Your task to perform on an android device: change notifications settings Image 0: 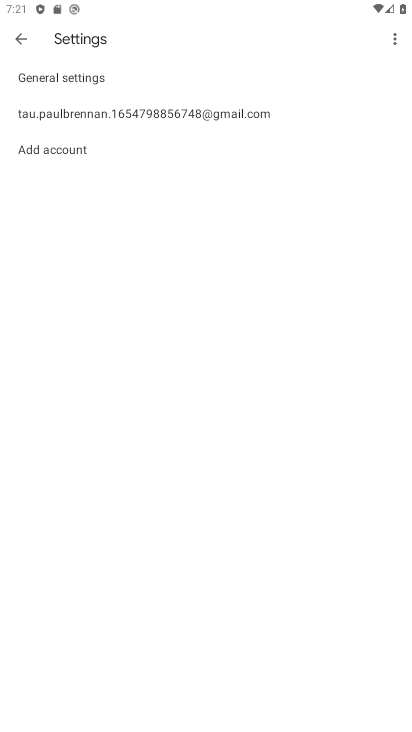
Step 0: press home button
Your task to perform on an android device: change notifications settings Image 1: 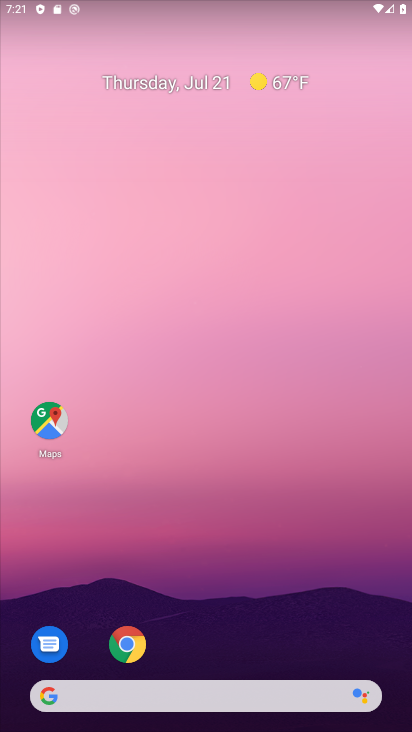
Step 1: drag from (230, 657) to (248, 99)
Your task to perform on an android device: change notifications settings Image 2: 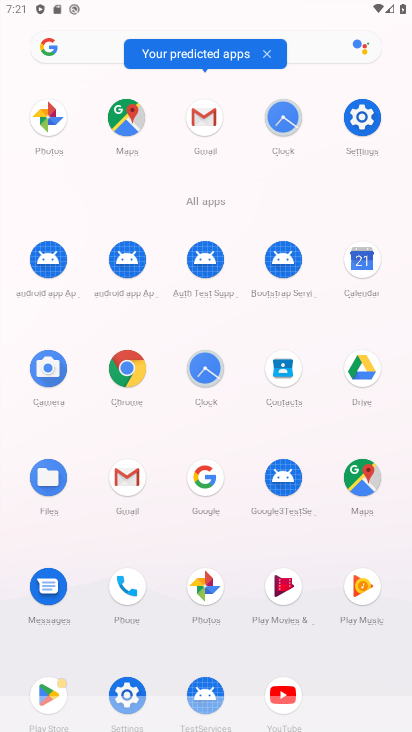
Step 2: click (133, 689)
Your task to perform on an android device: change notifications settings Image 3: 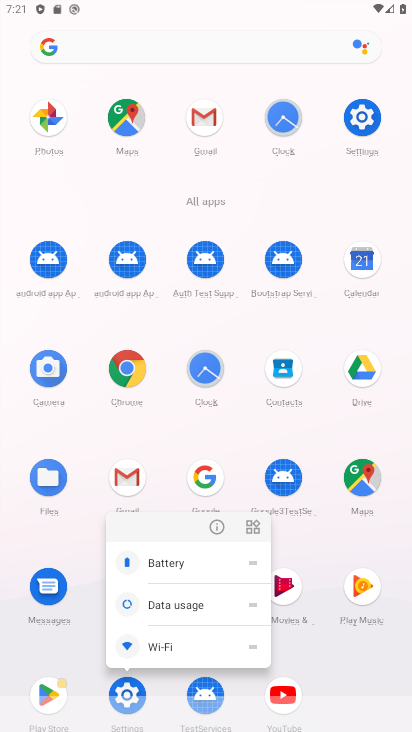
Step 3: click (126, 683)
Your task to perform on an android device: change notifications settings Image 4: 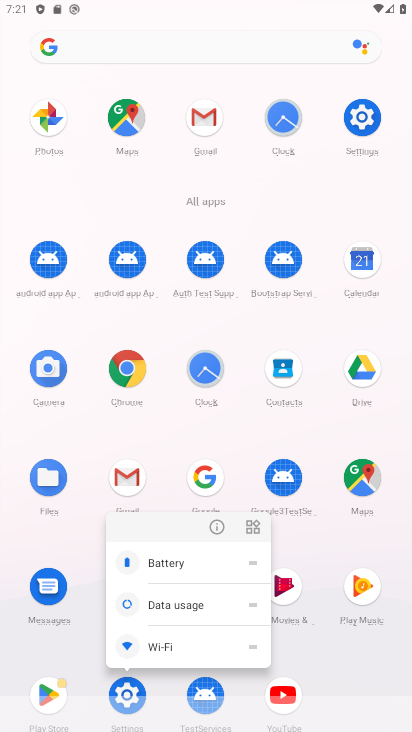
Step 4: click (126, 683)
Your task to perform on an android device: change notifications settings Image 5: 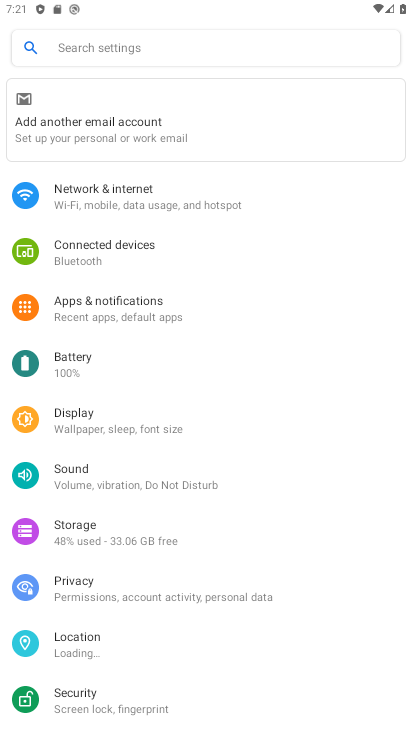
Step 5: click (125, 311)
Your task to perform on an android device: change notifications settings Image 6: 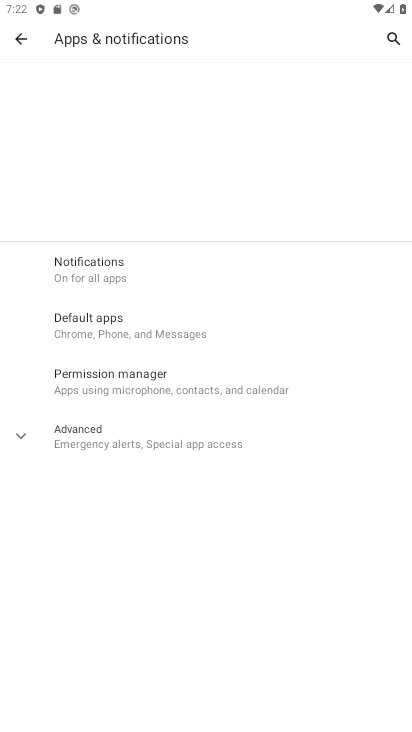
Step 6: click (100, 283)
Your task to perform on an android device: change notifications settings Image 7: 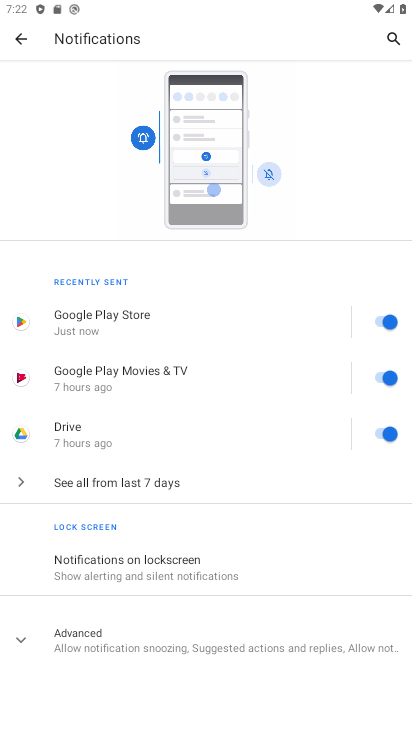
Step 7: click (150, 473)
Your task to perform on an android device: change notifications settings Image 8: 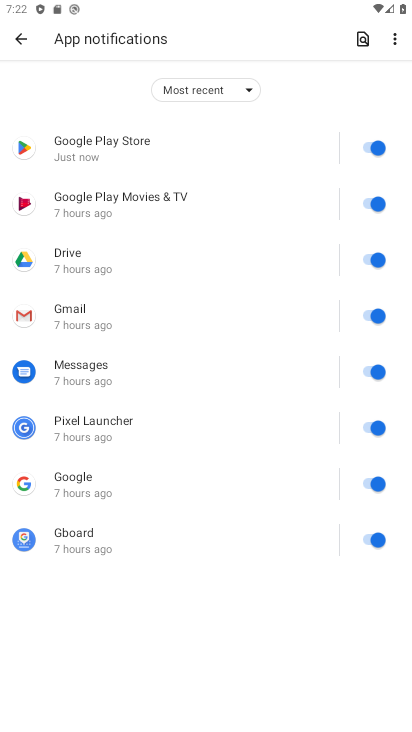
Step 8: click (364, 144)
Your task to perform on an android device: change notifications settings Image 9: 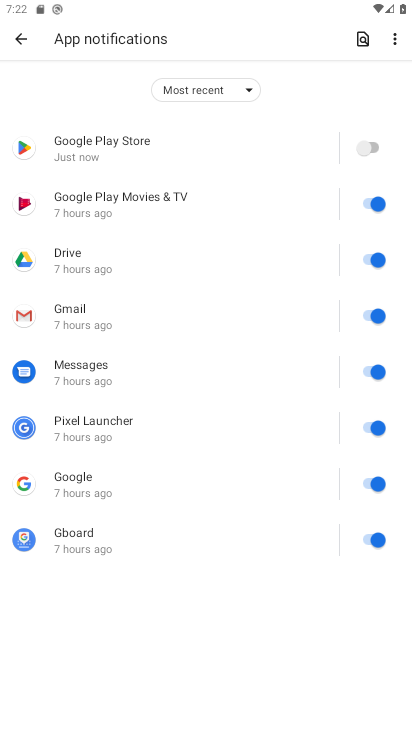
Step 9: click (364, 210)
Your task to perform on an android device: change notifications settings Image 10: 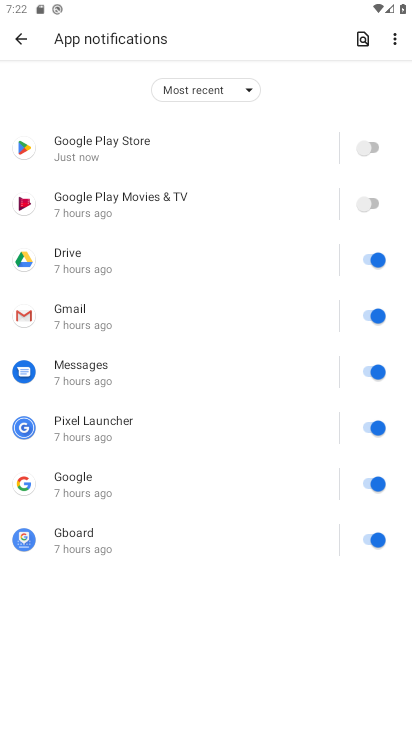
Step 10: click (358, 276)
Your task to perform on an android device: change notifications settings Image 11: 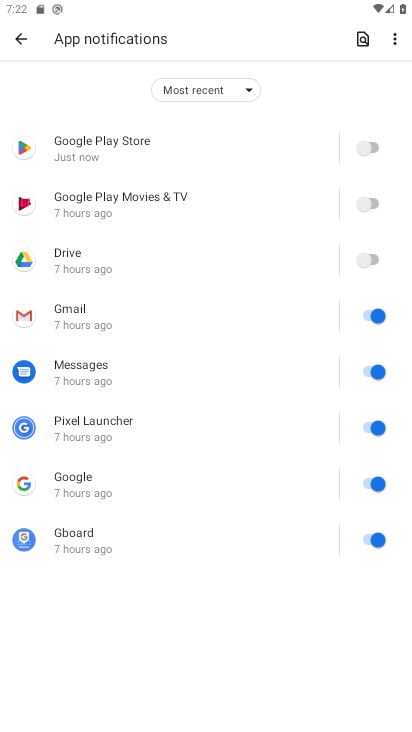
Step 11: click (355, 322)
Your task to perform on an android device: change notifications settings Image 12: 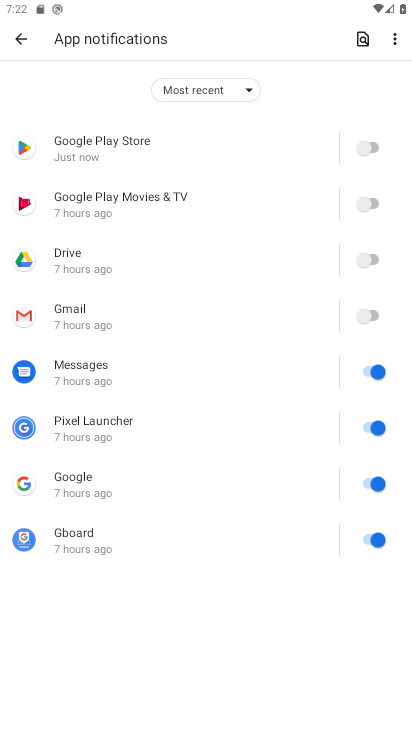
Step 12: click (357, 381)
Your task to perform on an android device: change notifications settings Image 13: 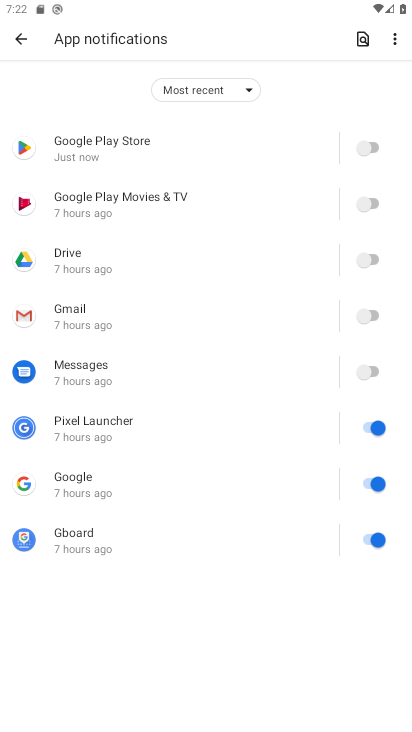
Step 13: click (353, 431)
Your task to perform on an android device: change notifications settings Image 14: 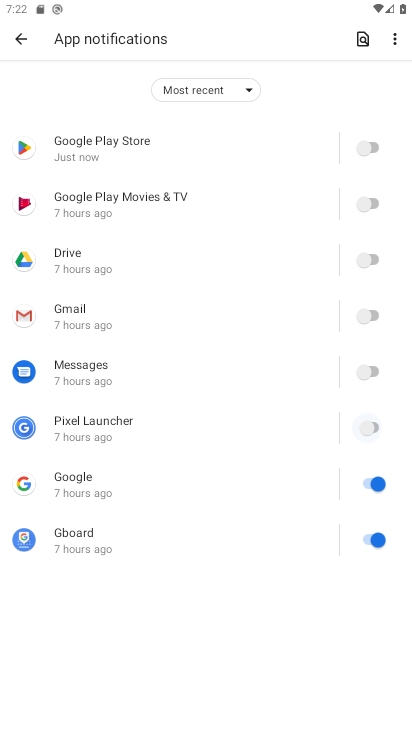
Step 14: click (350, 479)
Your task to perform on an android device: change notifications settings Image 15: 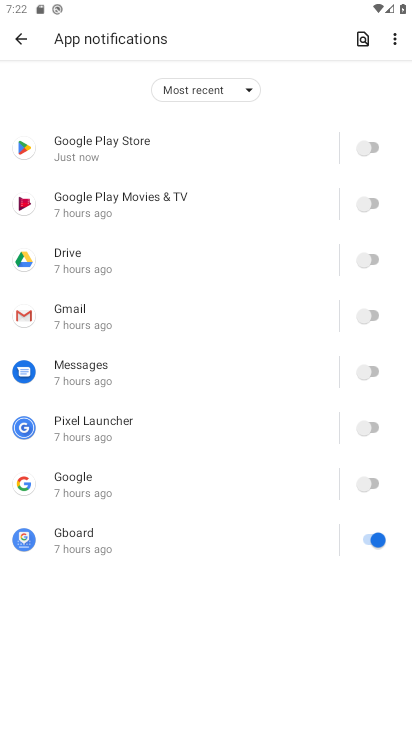
Step 15: click (359, 541)
Your task to perform on an android device: change notifications settings Image 16: 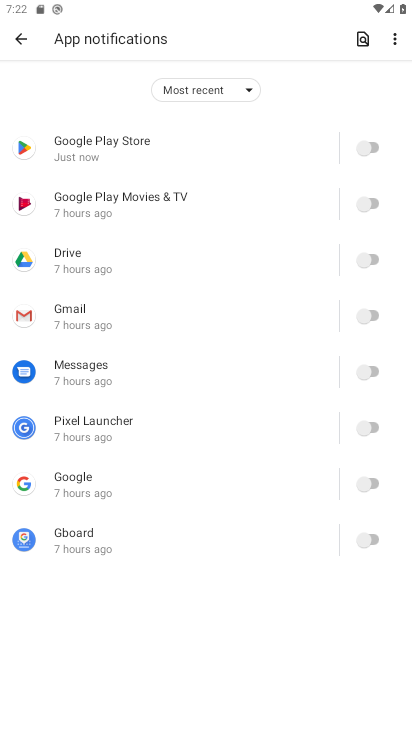
Step 16: task complete